Your task to perform on an android device: Open Google Image 0: 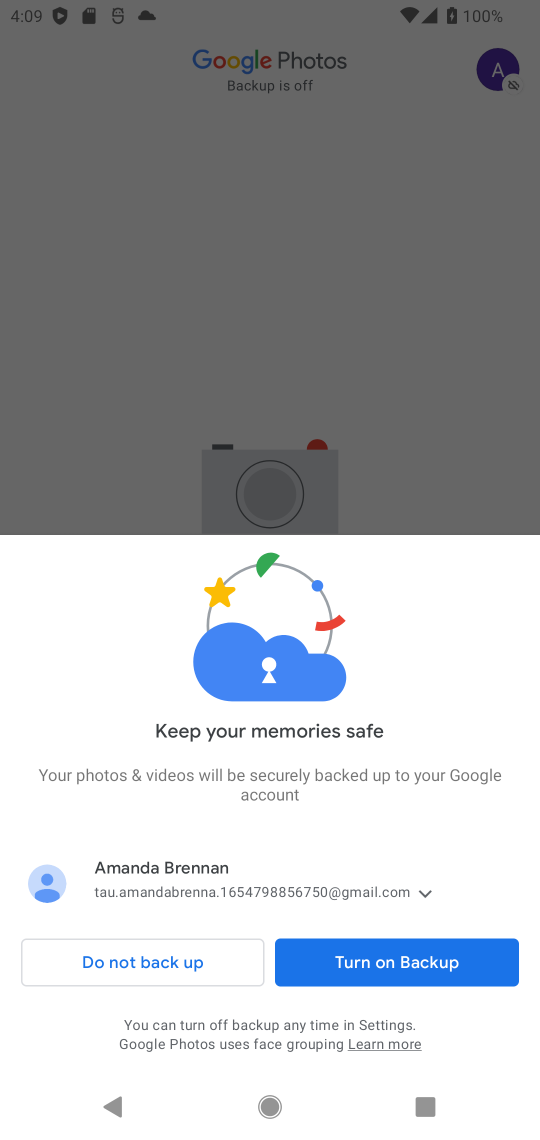
Step 0: press home button
Your task to perform on an android device: Open Google Image 1: 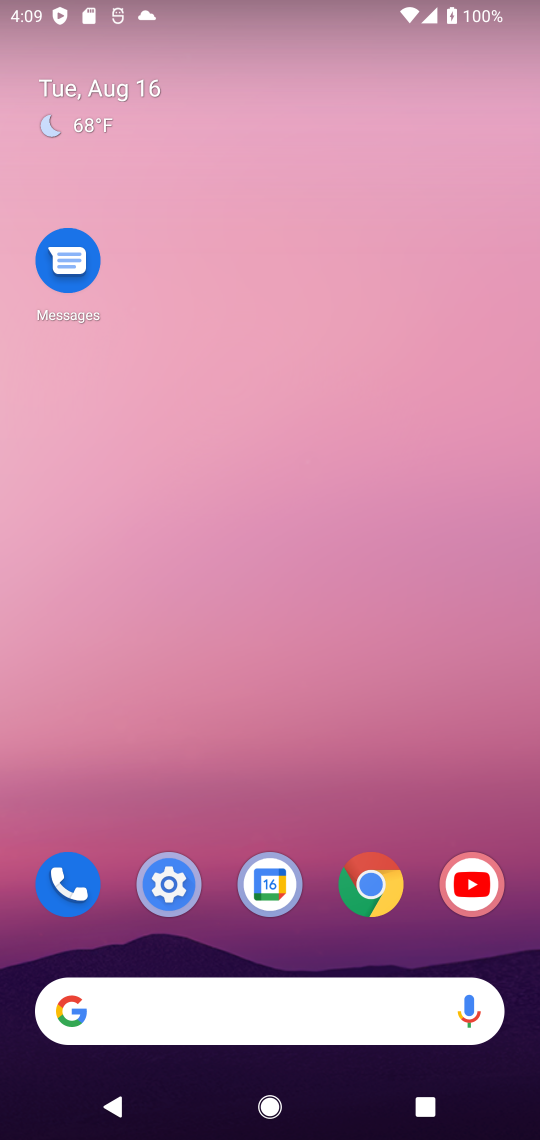
Step 1: click (391, 890)
Your task to perform on an android device: Open Google Image 2: 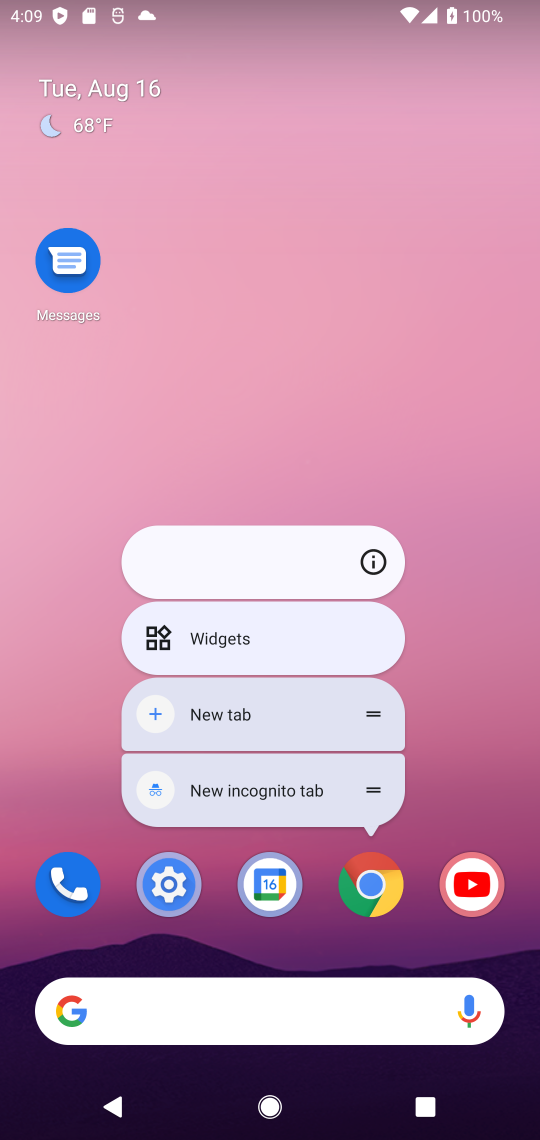
Step 2: click (388, 882)
Your task to perform on an android device: Open Google Image 3: 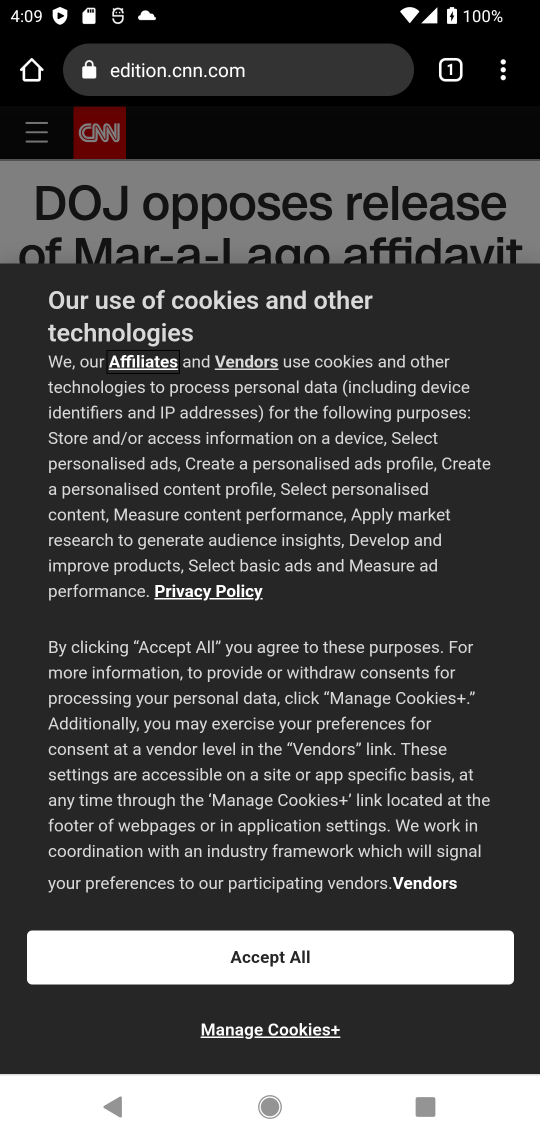
Step 3: task complete